Your task to perform on an android device: Show me productivity apps on the Play Store Image 0: 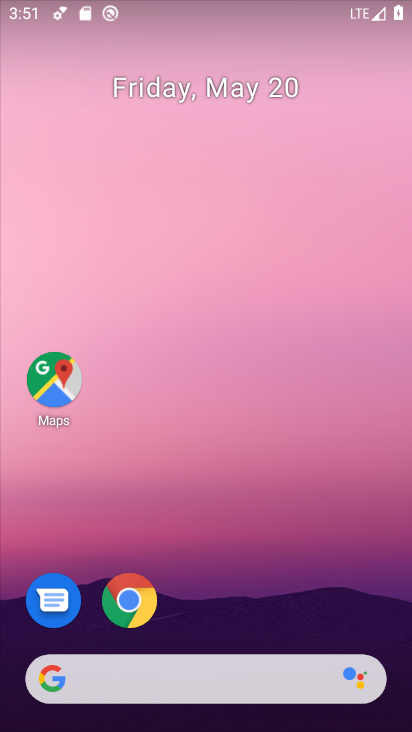
Step 0: drag from (331, 606) to (329, 255)
Your task to perform on an android device: Show me productivity apps on the Play Store Image 1: 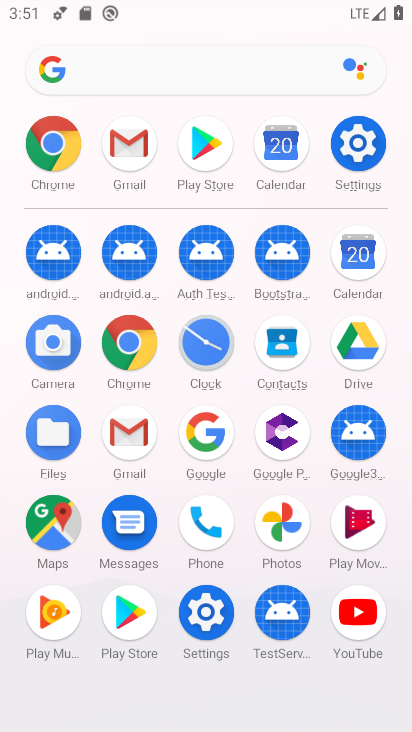
Step 1: click (110, 633)
Your task to perform on an android device: Show me productivity apps on the Play Store Image 2: 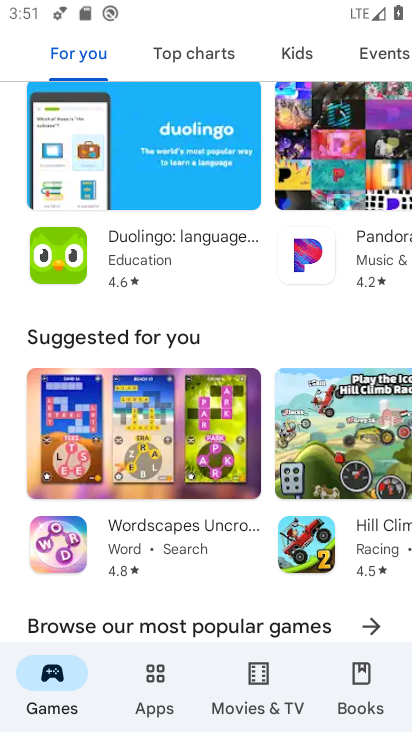
Step 2: click (149, 685)
Your task to perform on an android device: Show me productivity apps on the Play Store Image 3: 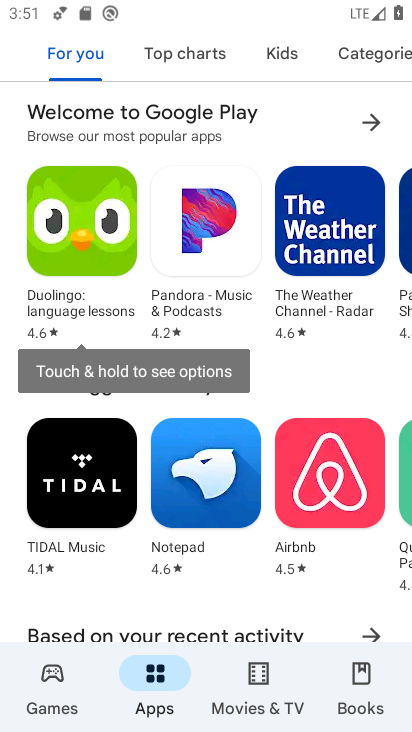
Step 3: task complete